Your task to perform on an android device: Find coffee shops on Maps Image 0: 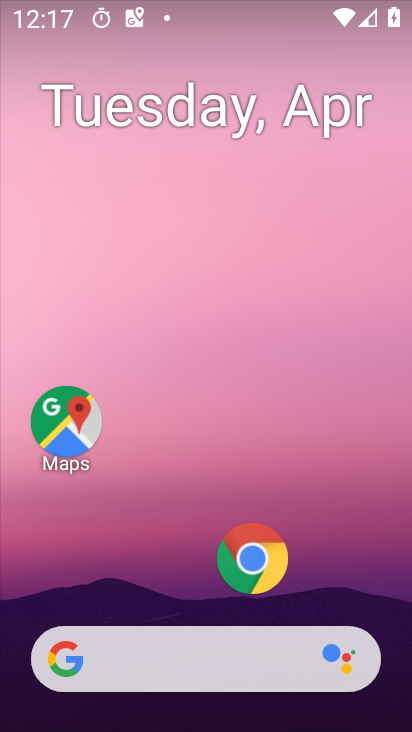
Step 0: click (202, 209)
Your task to perform on an android device: Find coffee shops on Maps Image 1: 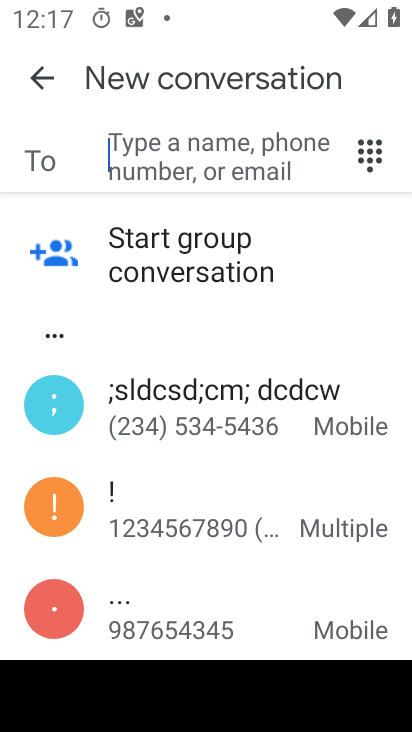
Step 1: press home button
Your task to perform on an android device: Find coffee shops on Maps Image 2: 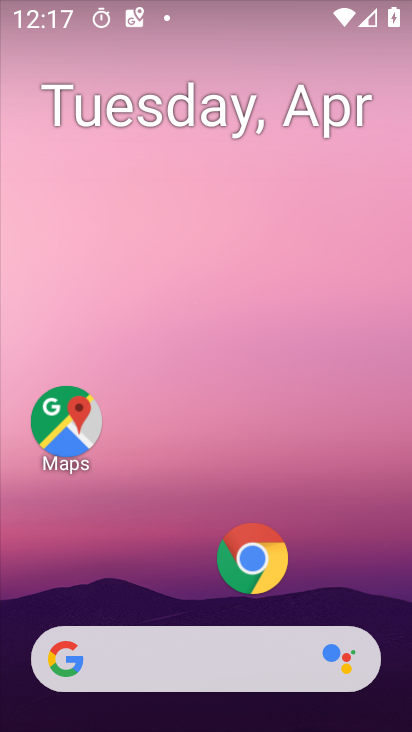
Step 2: drag from (217, 221) to (240, 123)
Your task to perform on an android device: Find coffee shops on Maps Image 3: 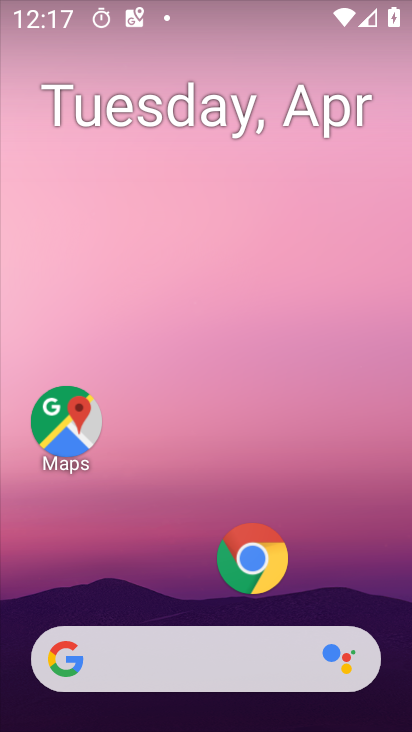
Step 3: drag from (119, 563) to (228, 165)
Your task to perform on an android device: Find coffee shops on Maps Image 4: 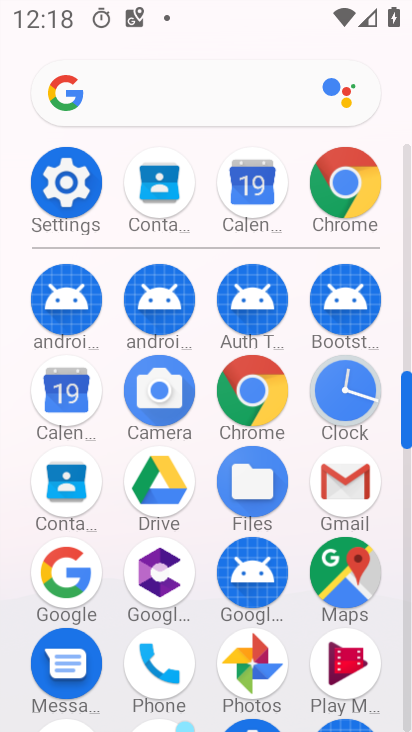
Step 4: click (350, 563)
Your task to perform on an android device: Find coffee shops on Maps Image 5: 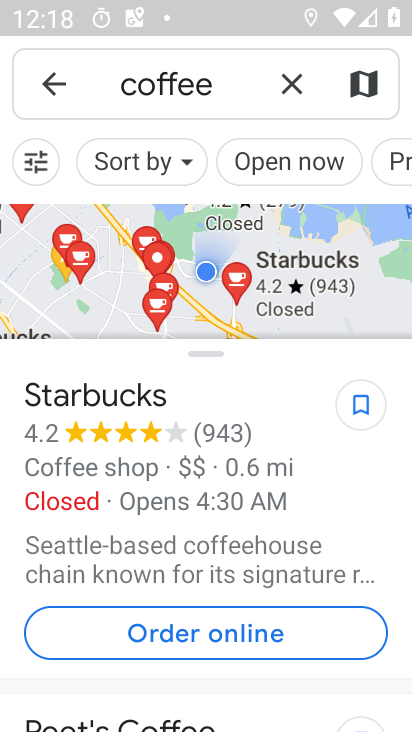
Step 5: click (224, 90)
Your task to perform on an android device: Find coffee shops on Maps Image 6: 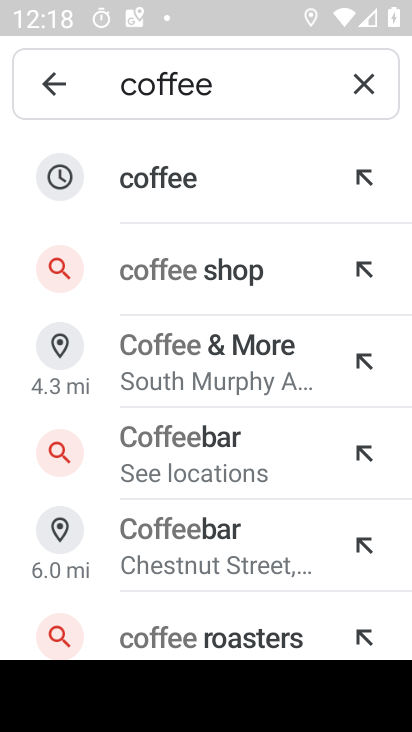
Step 6: click (245, 271)
Your task to perform on an android device: Find coffee shops on Maps Image 7: 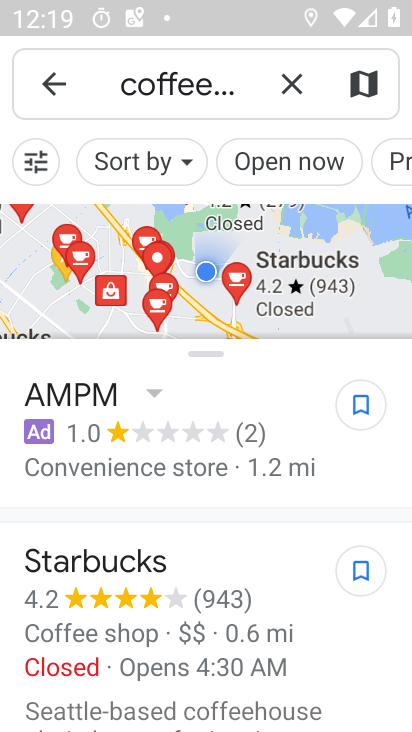
Step 7: task complete